Your task to perform on an android device: Open settings Image 0: 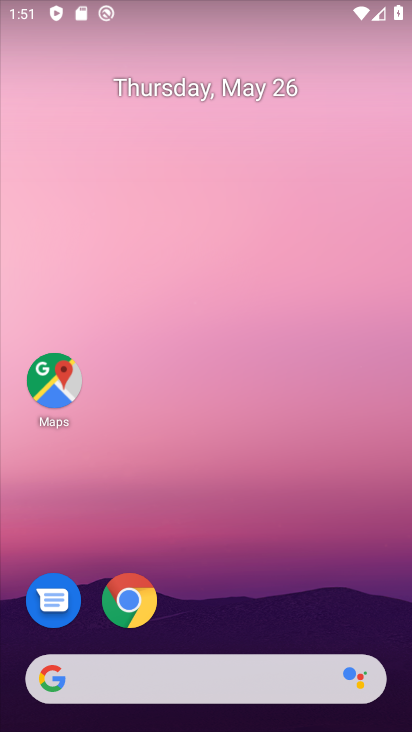
Step 0: drag from (285, 583) to (131, 37)
Your task to perform on an android device: Open settings Image 1: 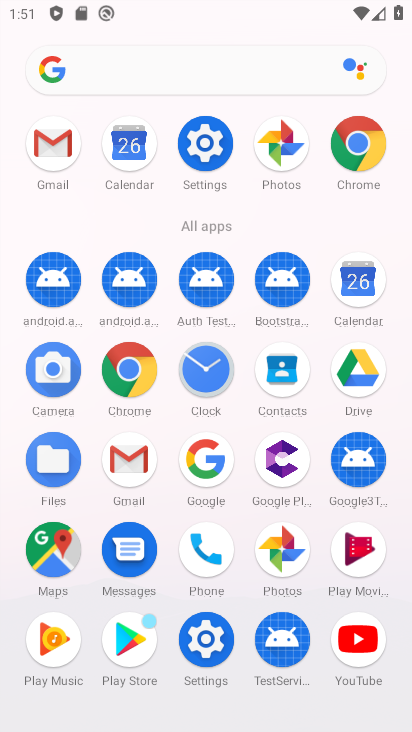
Step 1: click (202, 638)
Your task to perform on an android device: Open settings Image 2: 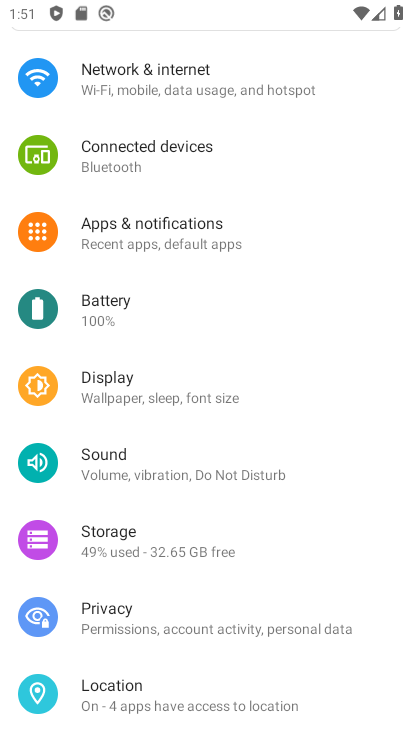
Step 2: task complete